Your task to perform on an android device: toggle wifi Image 0: 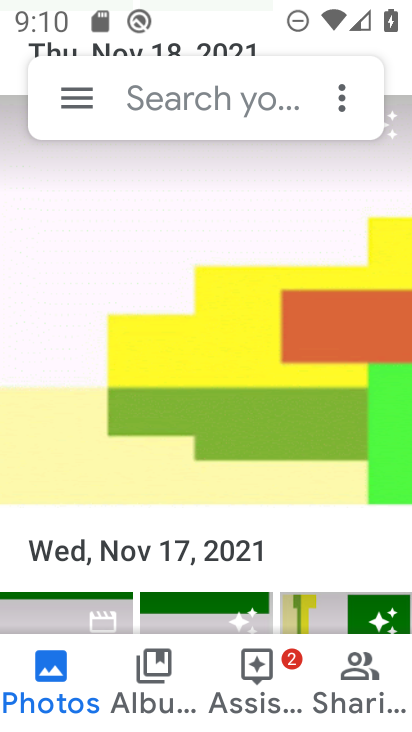
Step 0: press home button
Your task to perform on an android device: toggle wifi Image 1: 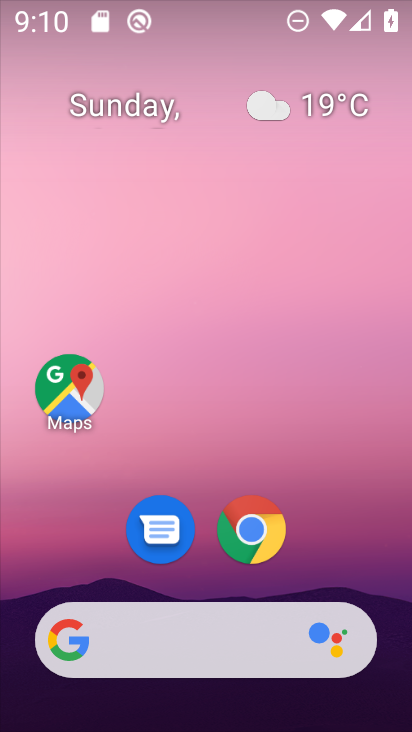
Step 1: drag from (169, 16) to (161, 469)
Your task to perform on an android device: toggle wifi Image 2: 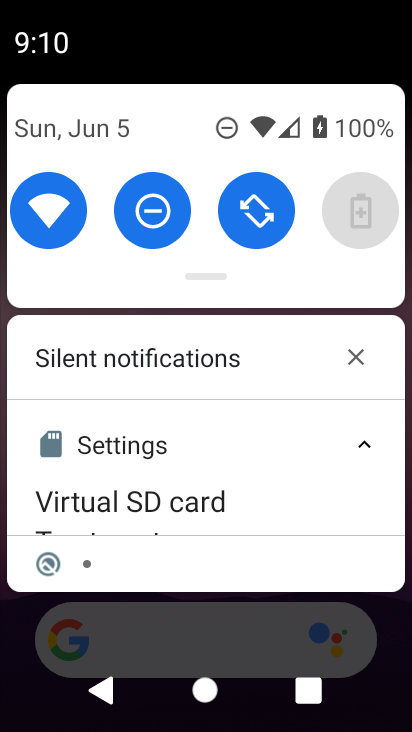
Step 2: click (35, 205)
Your task to perform on an android device: toggle wifi Image 3: 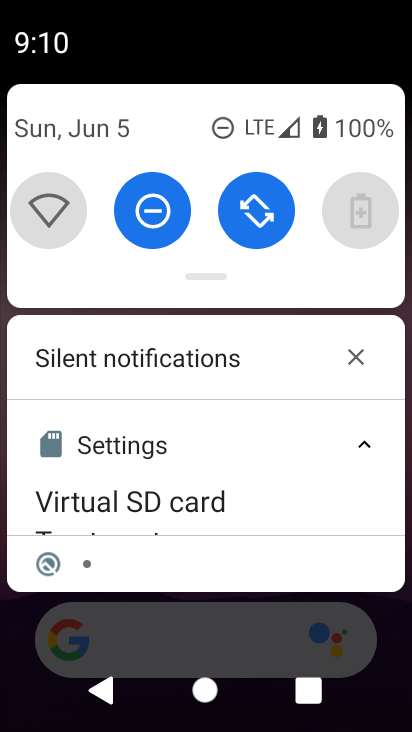
Step 3: task complete